Your task to perform on an android device: Open Yahoo.com Image 0: 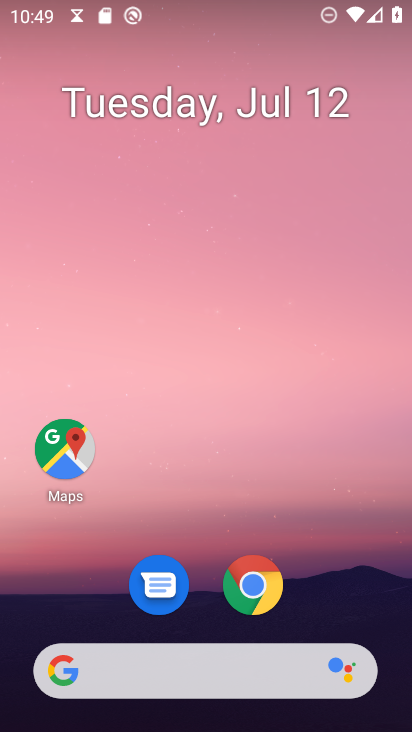
Step 0: press home button
Your task to perform on an android device: Open Yahoo.com Image 1: 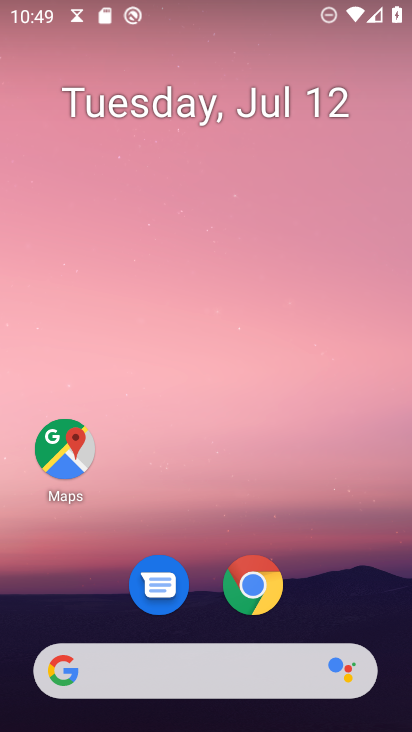
Step 1: click (257, 584)
Your task to perform on an android device: Open Yahoo.com Image 2: 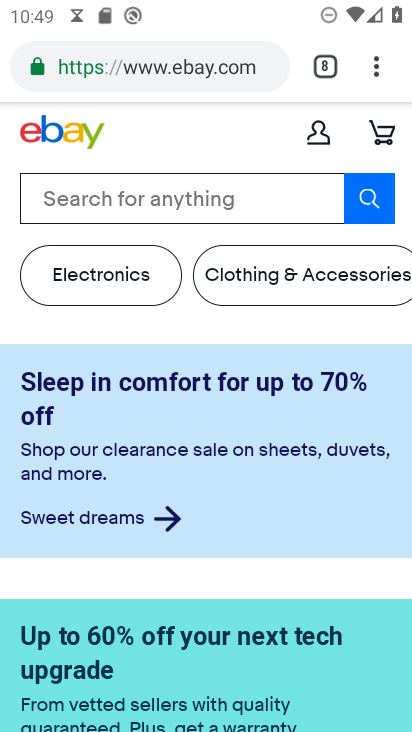
Step 2: drag from (376, 64) to (227, 131)
Your task to perform on an android device: Open Yahoo.com Image 3: 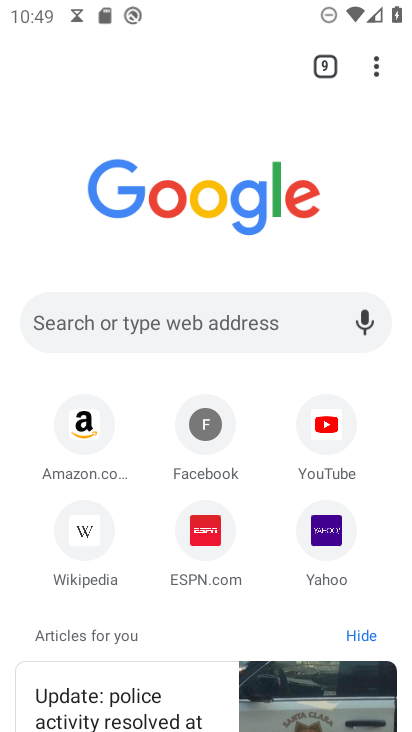
Step 3: click (322, 531)
Your task to perform on an android device: Open Yahoo.com Image 4: 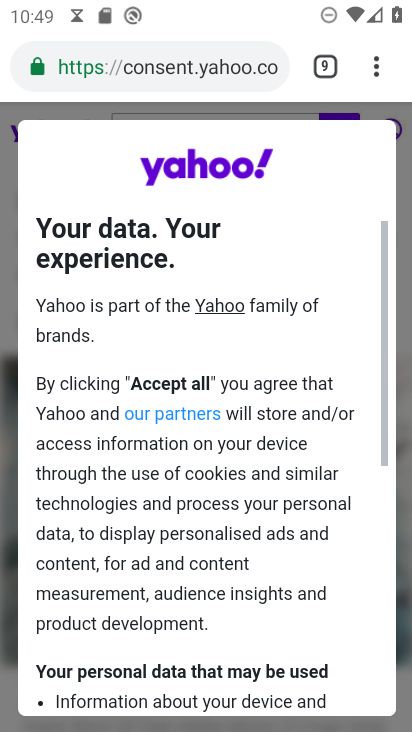
Step 4: drag from (218, 658) to (256, 101)
Your task to perform on an android device: Open Yahoo.com Image 5: 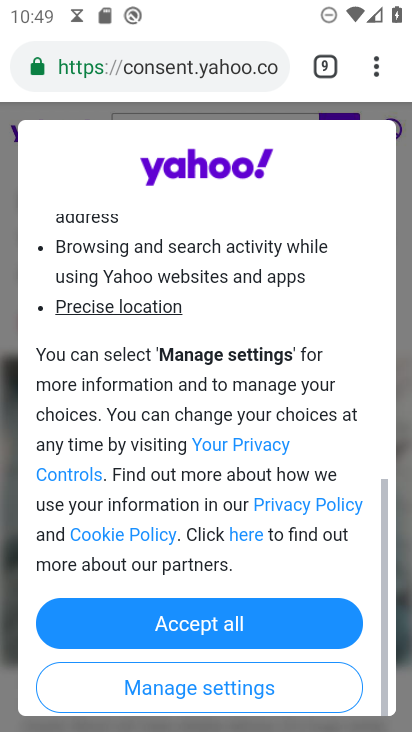
Step 5: click (232, 625)
Your task to perform on an android device: Open Yahoo.com Image 6: 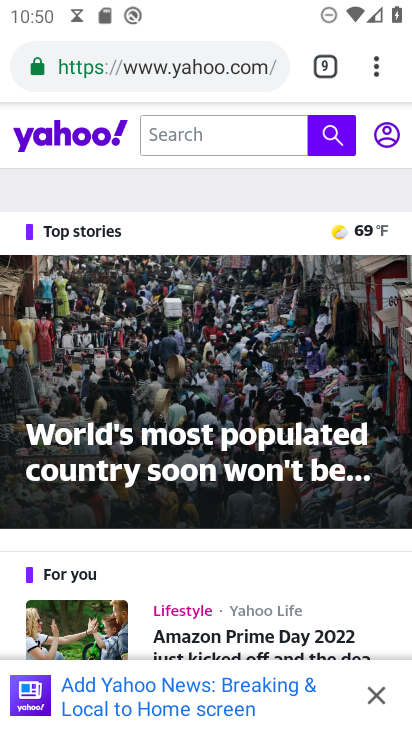
Step 6: task complete